Your task to perform on an android device: open a bookmark in the chrome app Image 0: 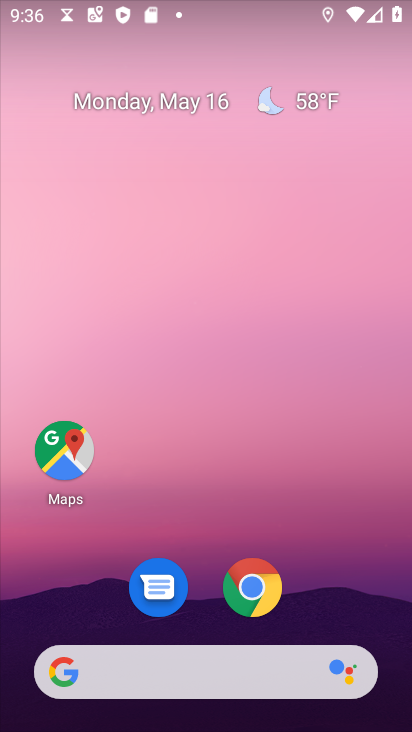
Step 0: click (262, 597)
Your task to perform on an android device: open a bookmark in the chrome app Image 1: 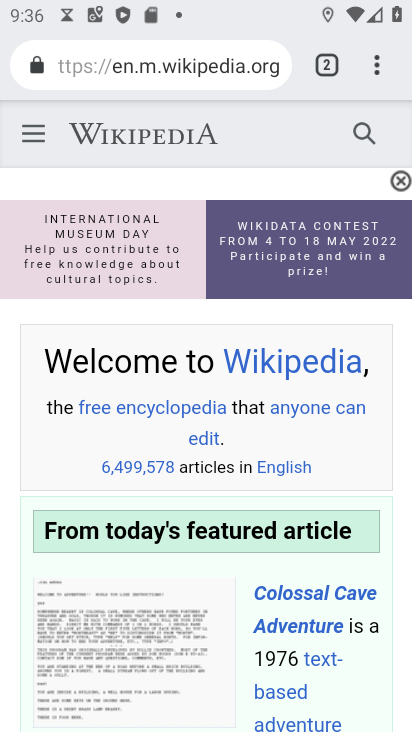
Step 1: click (380, 68)
Your task to perform on an android device: open a bookmark in the chrome app Image 2: 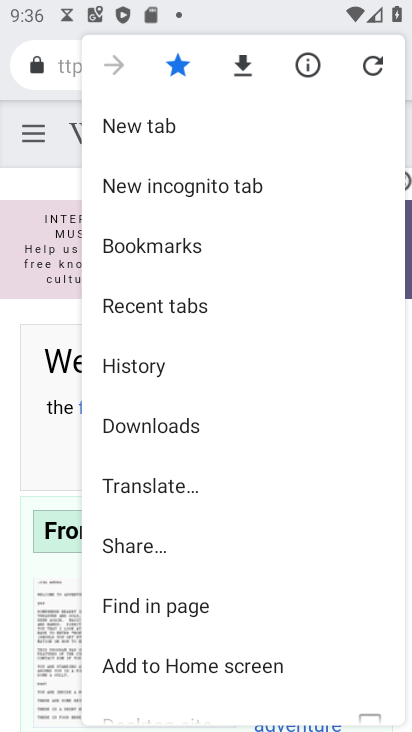
Step 2: click (311, 251)
Your task to perform on an android device: open a bookmark in the chrome app Image 3: 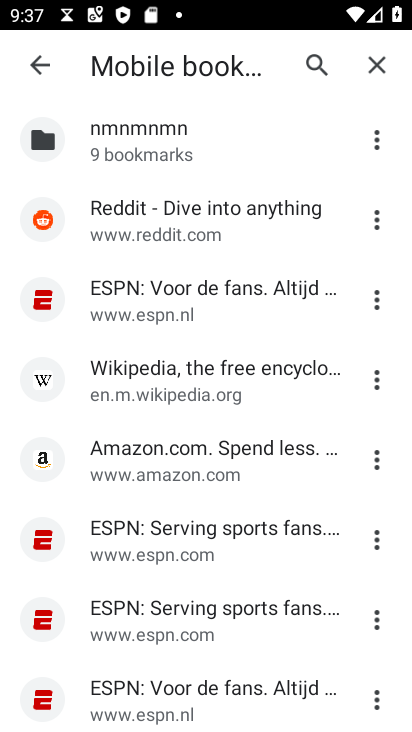
Step 3: click (269, 447)
Your task to perform on an android device: open a bookmark in the chrome app Image 4: 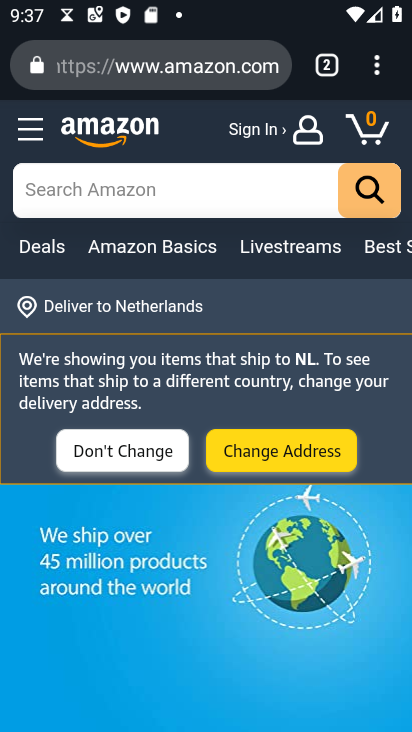
Step 4: task complete